Your task to perform on an android device: When is my next appointment? Image 0: 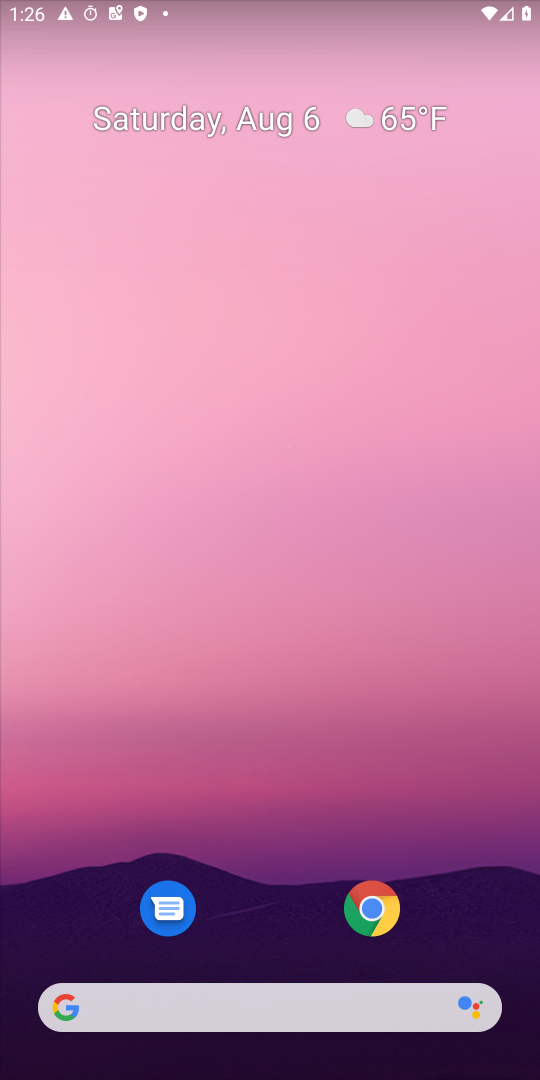
Step 0: drag from (238, 714) to (236, 101)
Your task to perform on an android device: When is my next appointment? Image 1: 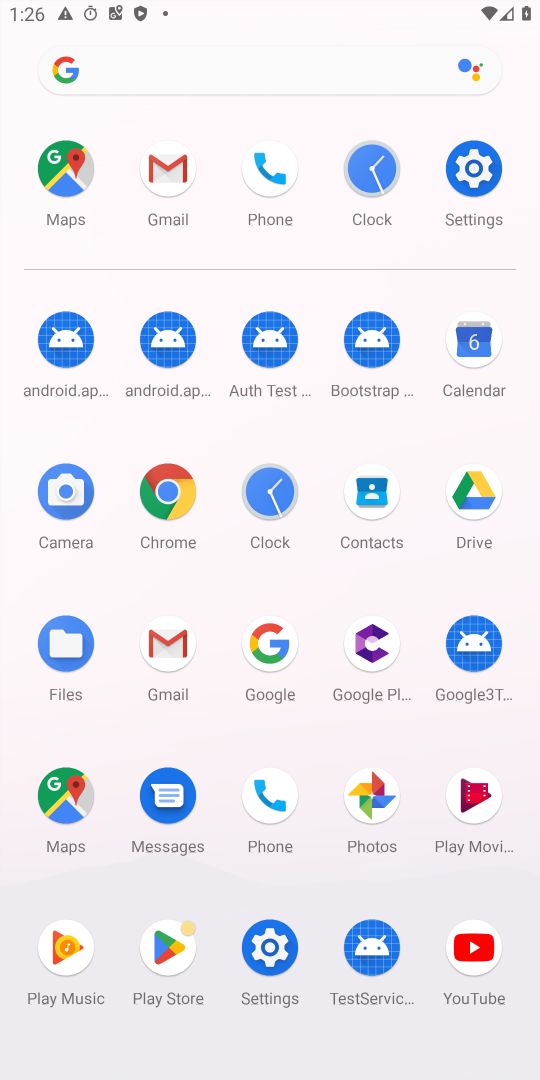
Step 1: click (475, 339)
Your task to perform on an android device: When is my next appointment? Image 2: 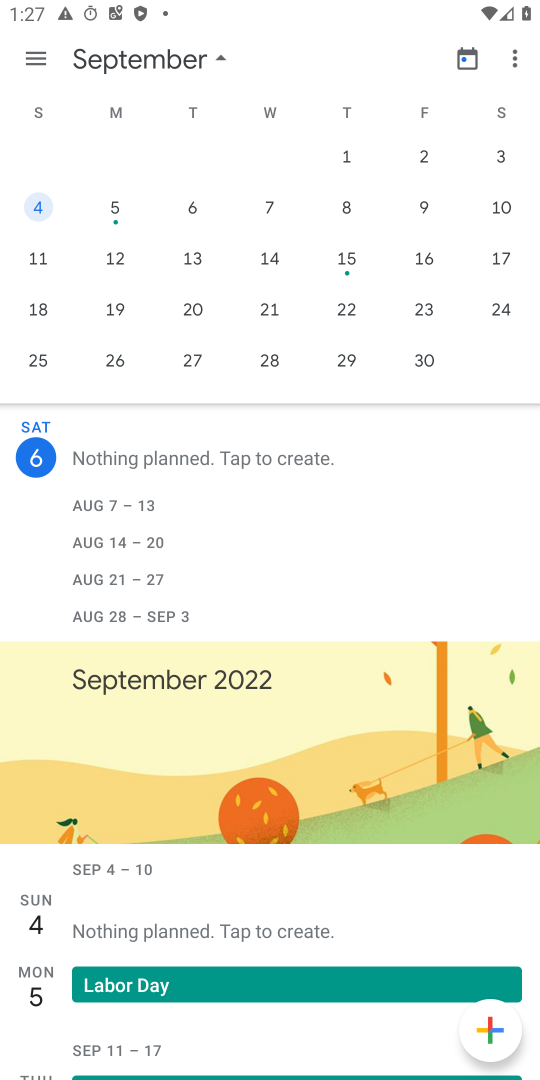
Step 2: drag from (392, 128) to (500, 124)
Your task to perform on an android device: When is my next appointment? Image 3: 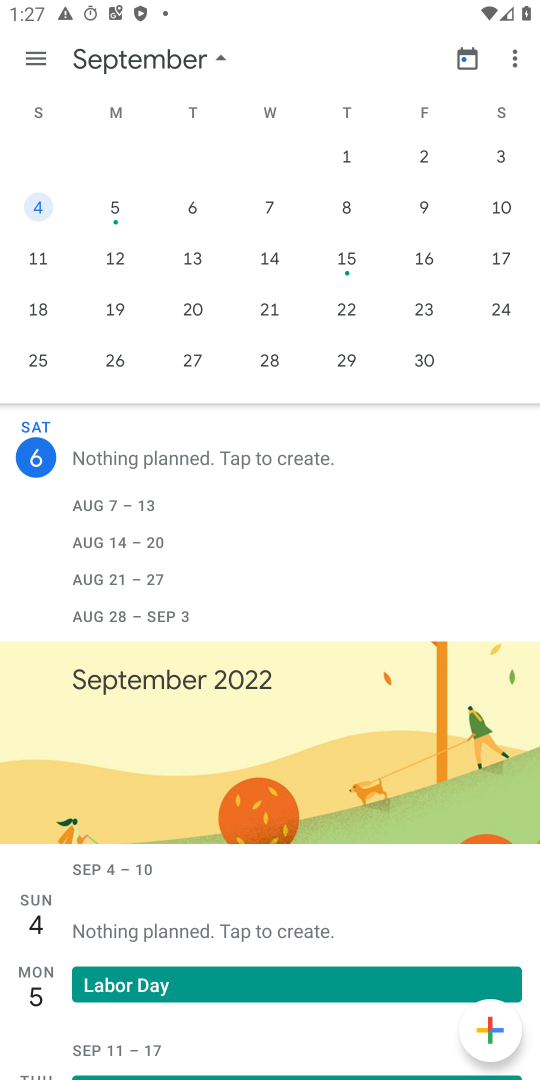
Step 3: drag from (357, 213) to (508, 220)
Your task to perform on an android device: When is my next appointment? Image 4: 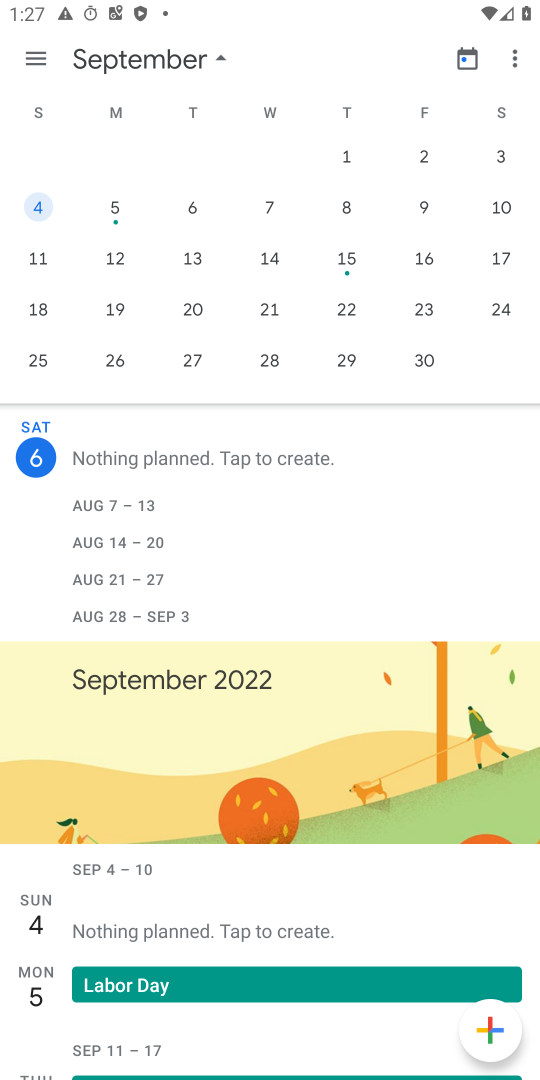
Step 4: drag from (106, 259) to (520, 308)
Your task to perform on an android device: When is my next appointment? Image 5: 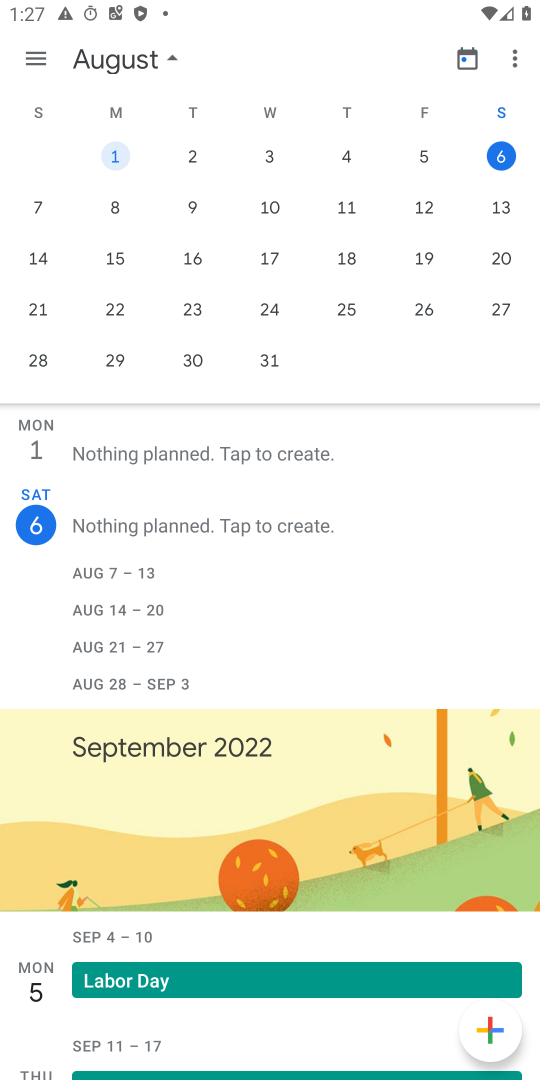
Step 5: click (492, 152)
Your task to perform on an android device: When is my next appointment? Image 6: 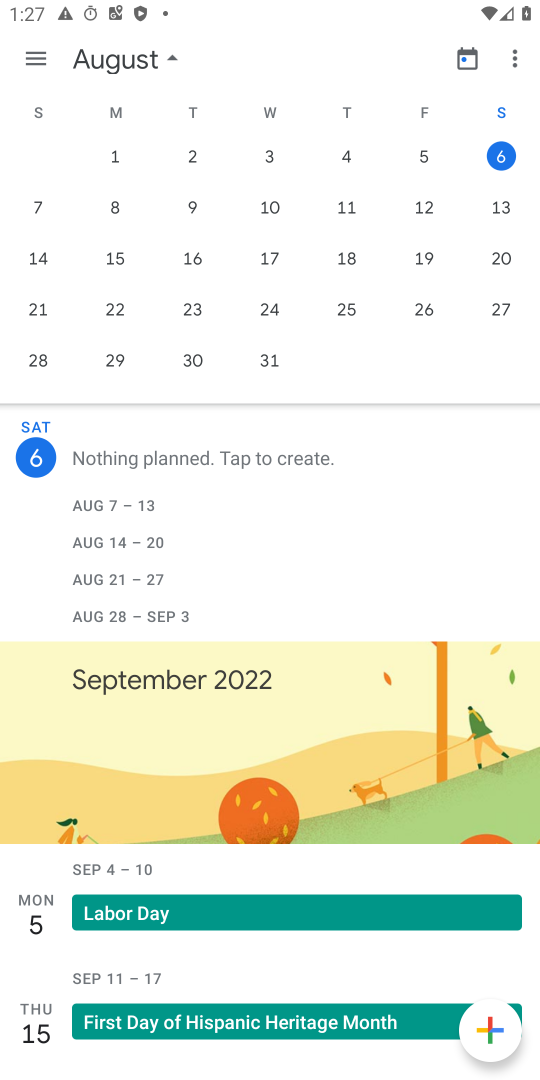
Step 6: task complete